Your task to perform on an android device: choose inbox layout in the gmail app Image 0: 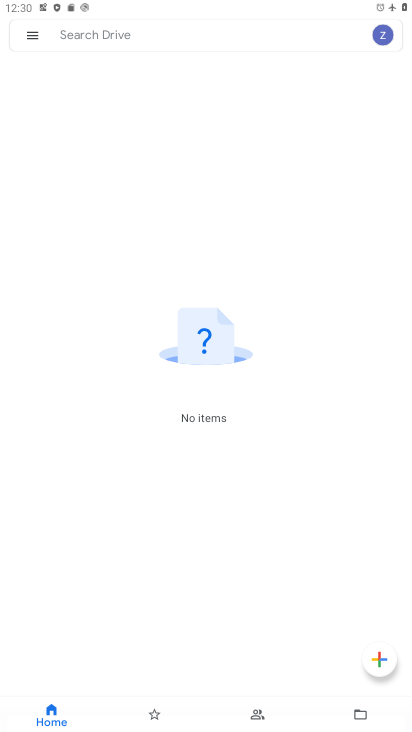
Step 0: drag from (210, 553) to (175, 196)
Your task to perform on an android device: choose inbox layout in the gmail app Image 1: 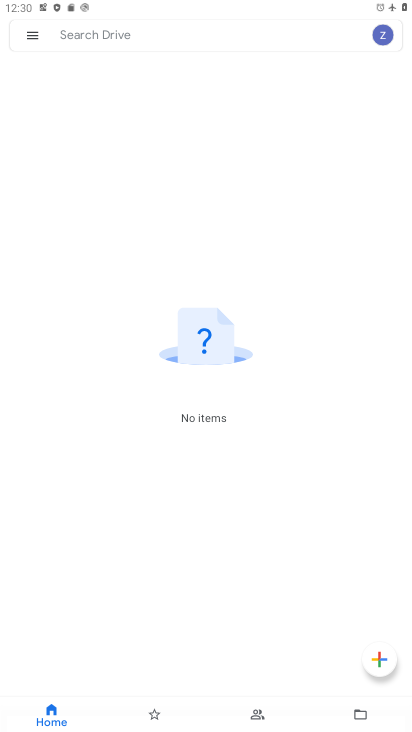
Step 1: press home button
Your task to perform on an android device: choose inbox layout in the gmail app Image 2: 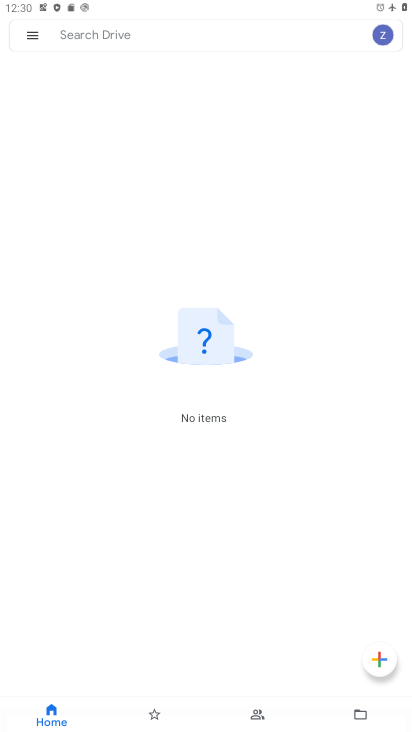
Step 2: press home button
Your task to perform on an android device: choose inbox layout in the gmail app Image 3: 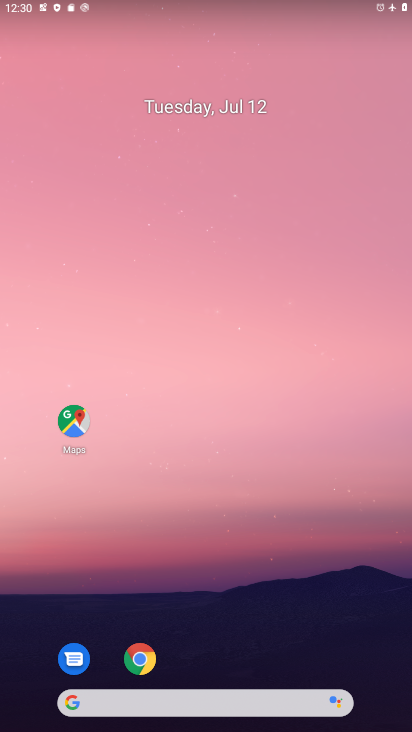
Step 3: drag from (188, 523) to (197, 101)
Your task to perform on an android device: choose inbox layout in the gmail app Image 4: 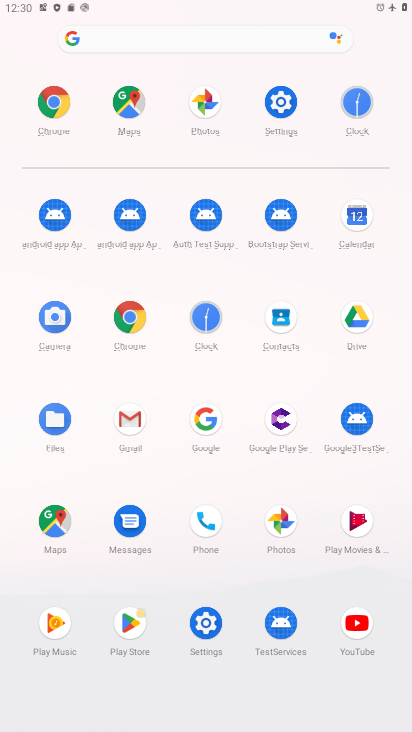
Step 4: click (127, 416)
Your task to perform on an android device: choose inbox layout in the gmail app Image 5: 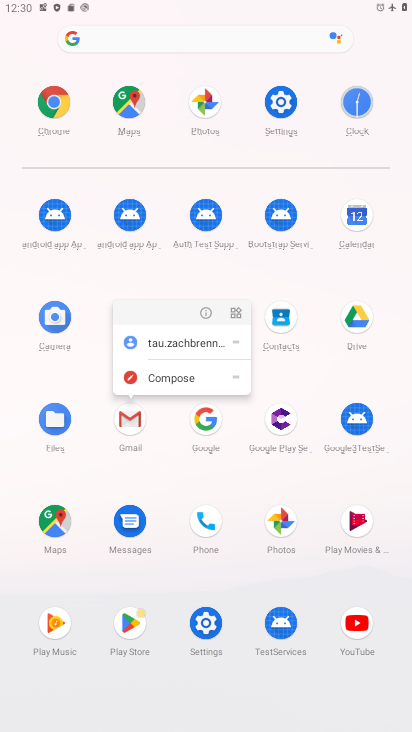
Step 5: click (205, 313)
Your task to perform on an android device: choose inbox layout in the gmail app Image 6: 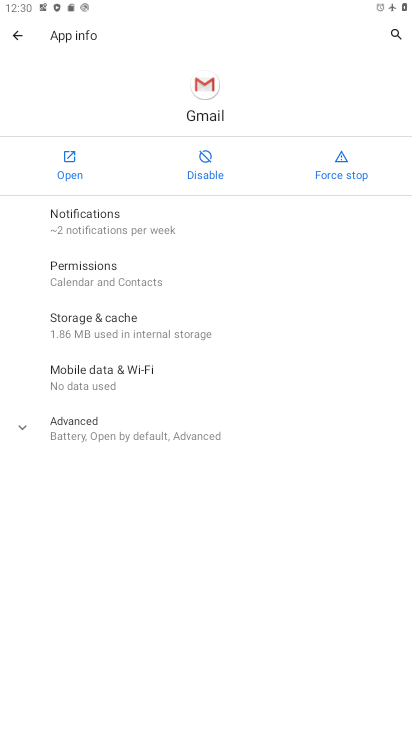
Step 6: click (69, 158)
Your task to perform on an android device: choose inbox layout in the gmail app Image 7: 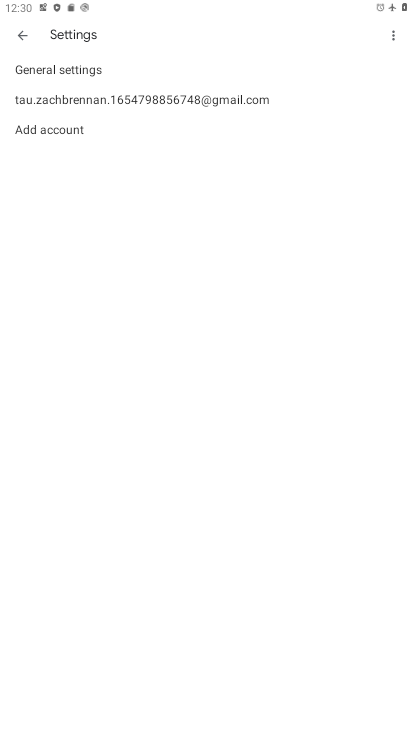
Step 7: click (201, 103)
Your task to perform on an android device: choose inbox layout in the gmail app Image 8: 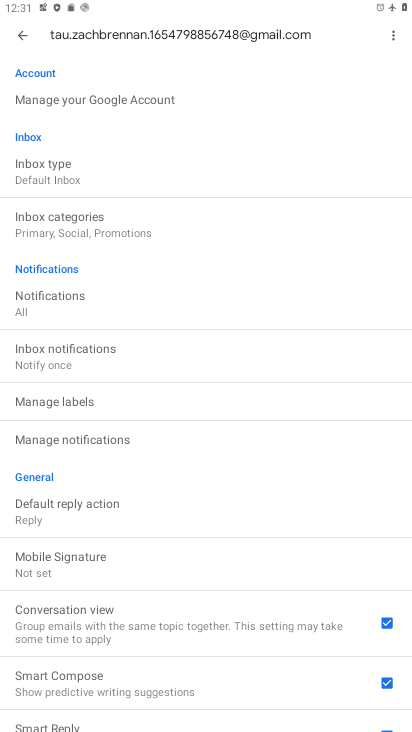
Step 8: drag from (138, 163) to (133, 415)
Your task to perform on an android device: choose inbox layout in the gmail app Image 9: 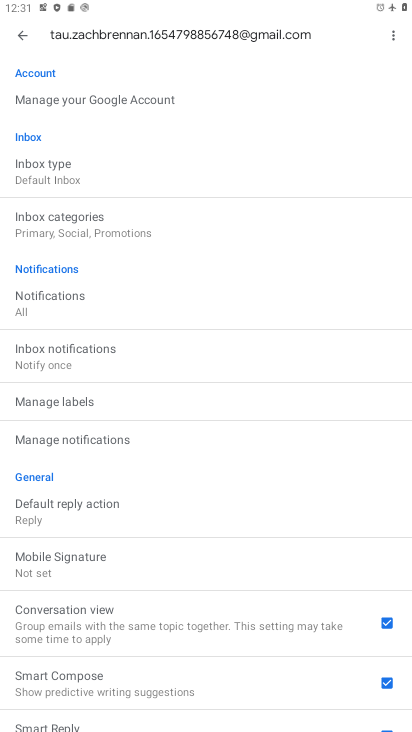
Step 9: click (26, 46)
Your task to perform on an android device: choose inbox layout in the gmail app Image 10: 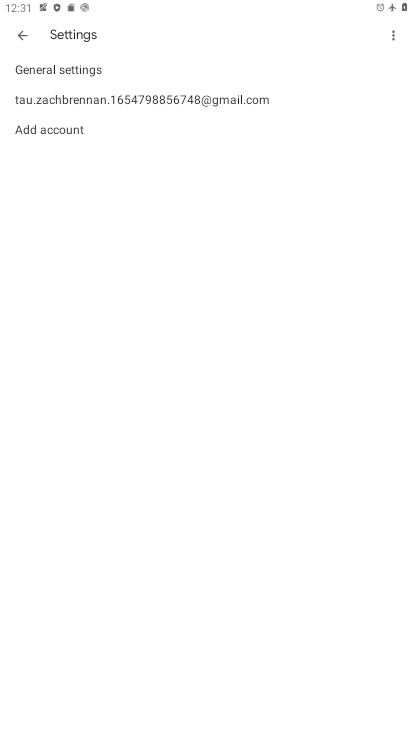
Step 10: click (25, 45)
Your task to perform on an android device: choose inbox layout in the gmail app Image 11: 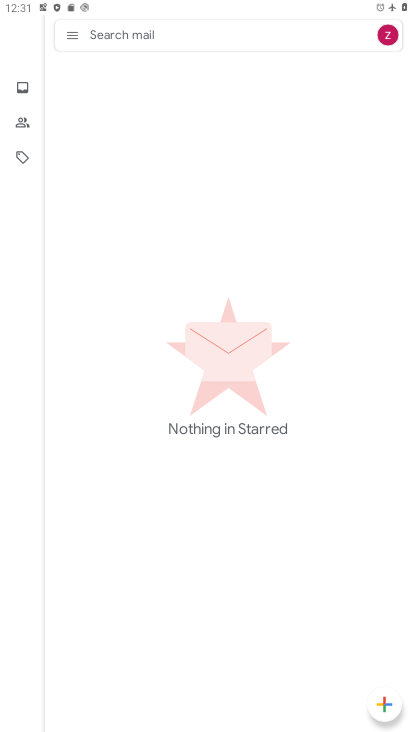
Step 11: click (77, 35)
Your task to perform on an android device: choose inbox layout in the gmail app Image 12: 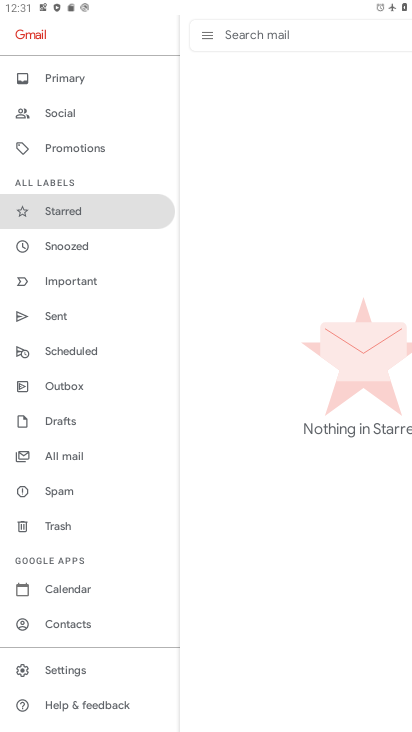
Step 12: click (67, 81)
Your task to perform on an android device: choose inbox layout in the gmail app Image 13: 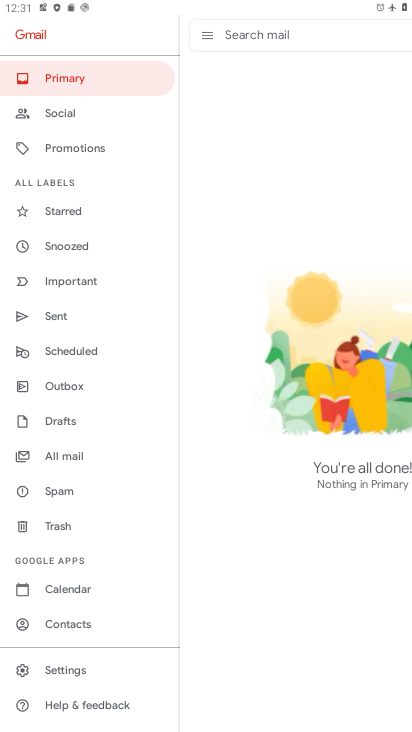
Step 13: task complete